Your task to perform on an android device: Find coffee shops on Maps Image 0: 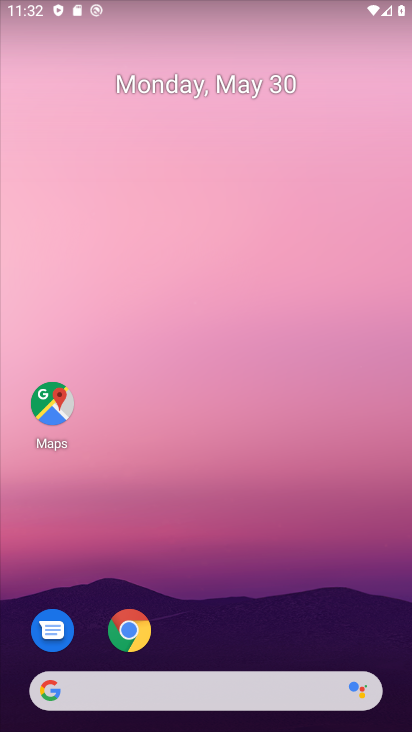
Step 0: click (56, 412)
Your task to perform on an android device: Find coffee shops on Maps Image 1: 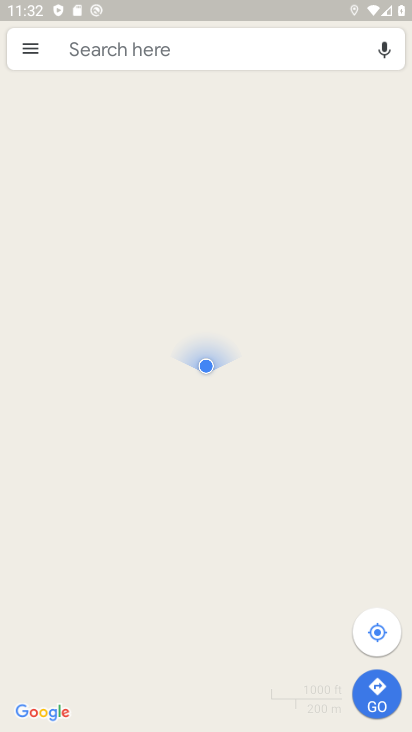
Step 1: click (170, 54)
Your task to perform on an android device: Find coffee shops on Maps Image 2: 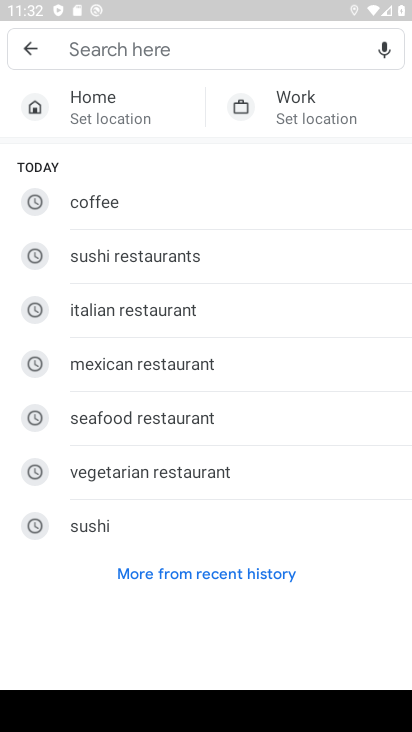
Step 2: type "coffee shops"
Your task to perform on an android device: Find coffee shops on Maps Image 3: 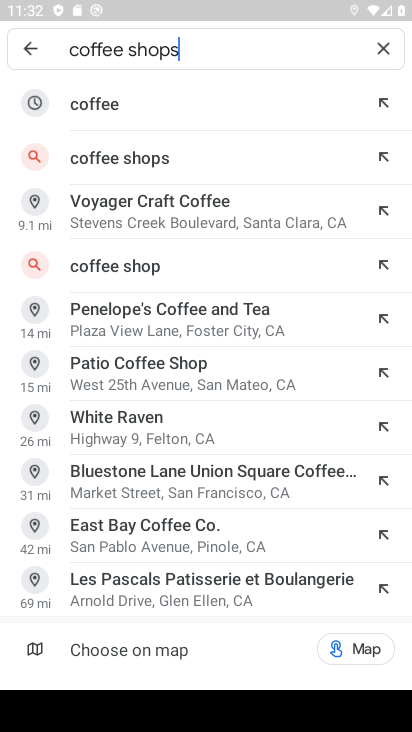
Step 3: click (118, 160)
Your task to perform on an android device: Find coffee shops on Maps Image 4: 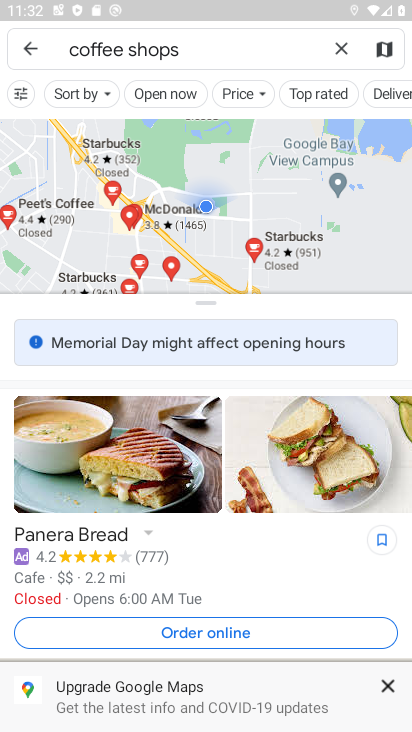
Step 4: task complete